Your task to perform on an android device: change your default location settings in chrome Image 0: 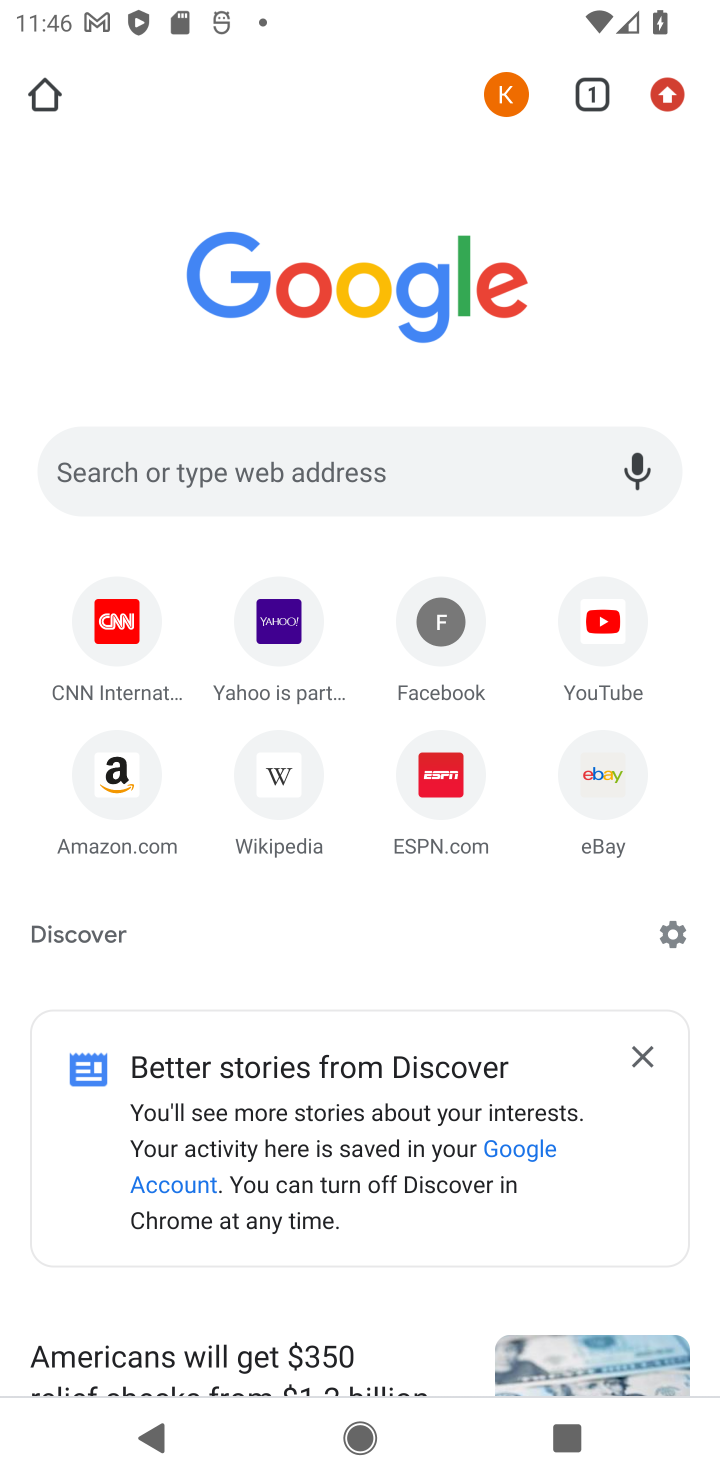
Step 0: press home button
Your task to perform on an android device: change your default location settings in chrome Image 1: 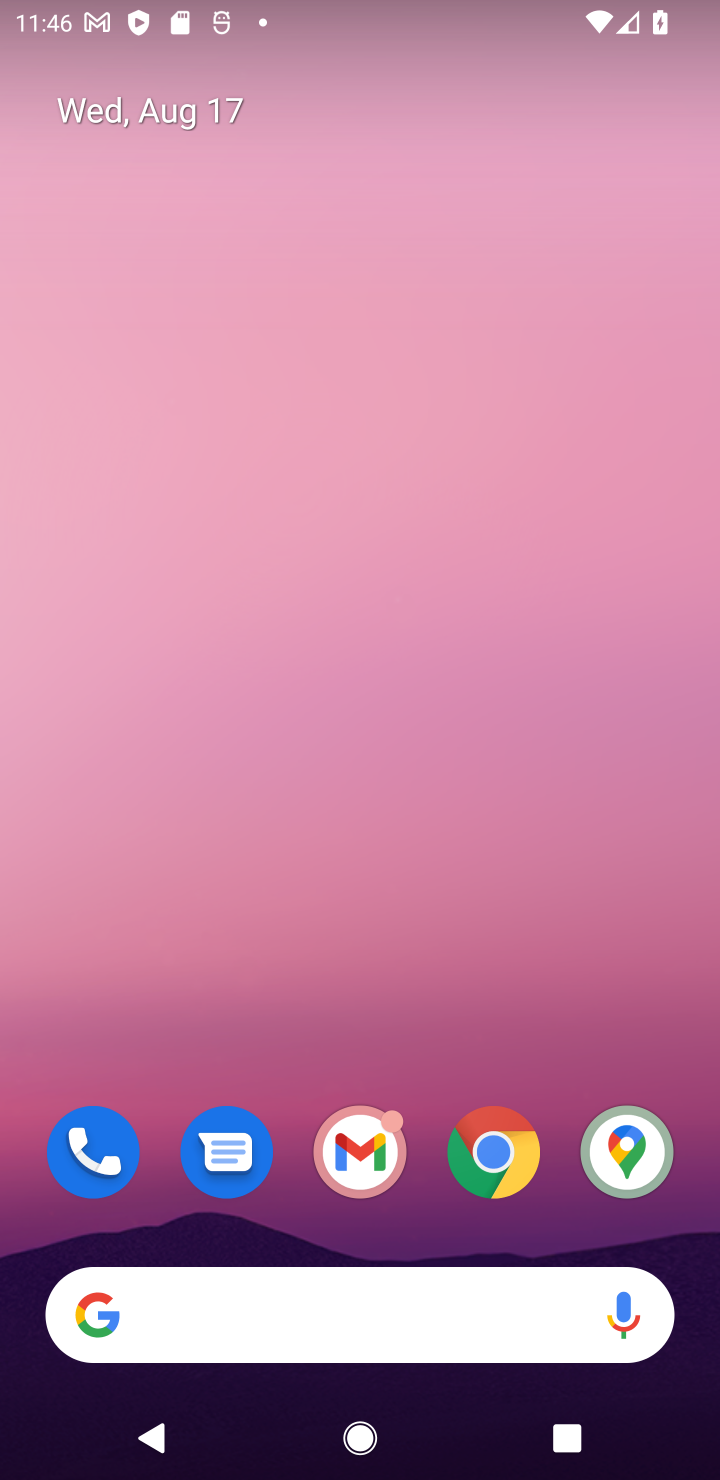
Step 1: drag from (646, 980) to (278, 104)
Your task to perform on an android device: change your default location settings in chrome Image 2: 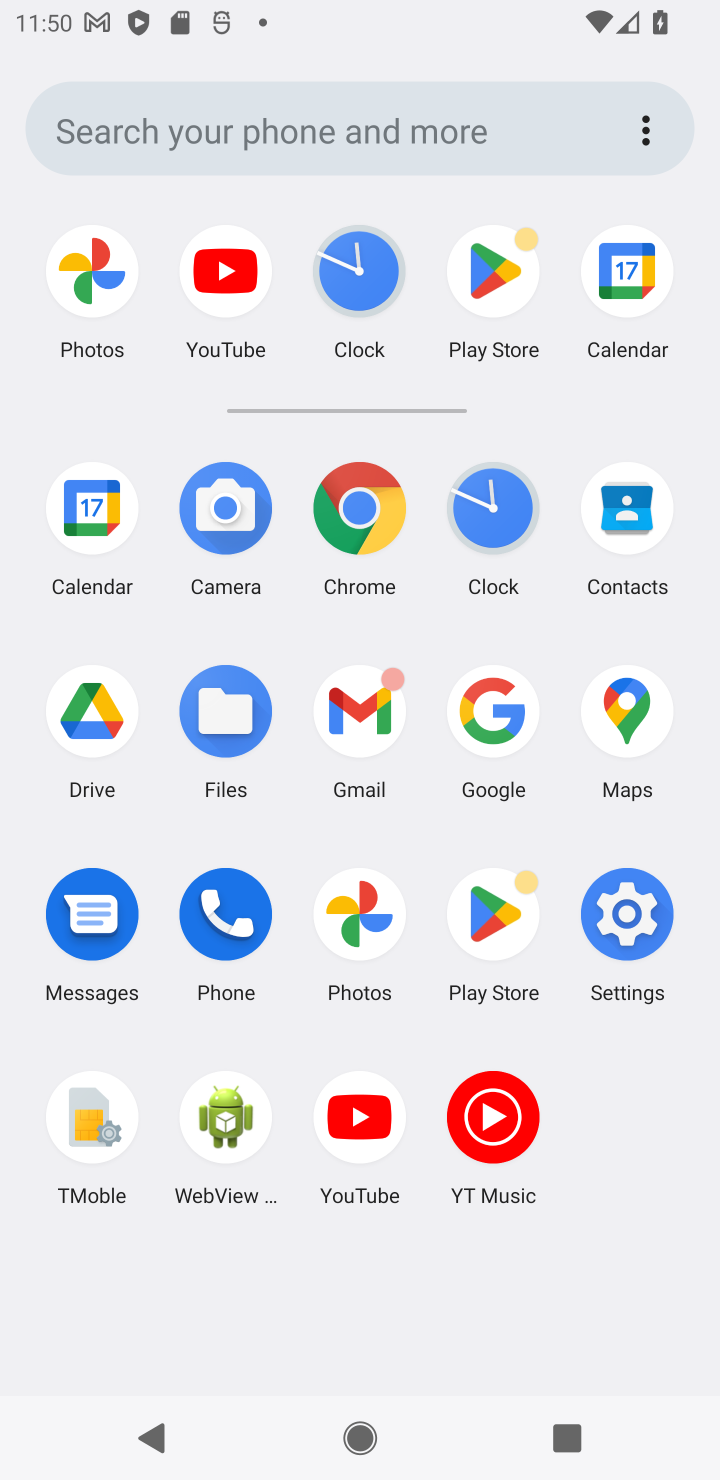
Step 2: click (631, 948)
Your task to perform on an android device: change your default location settings in chrome Image 3: 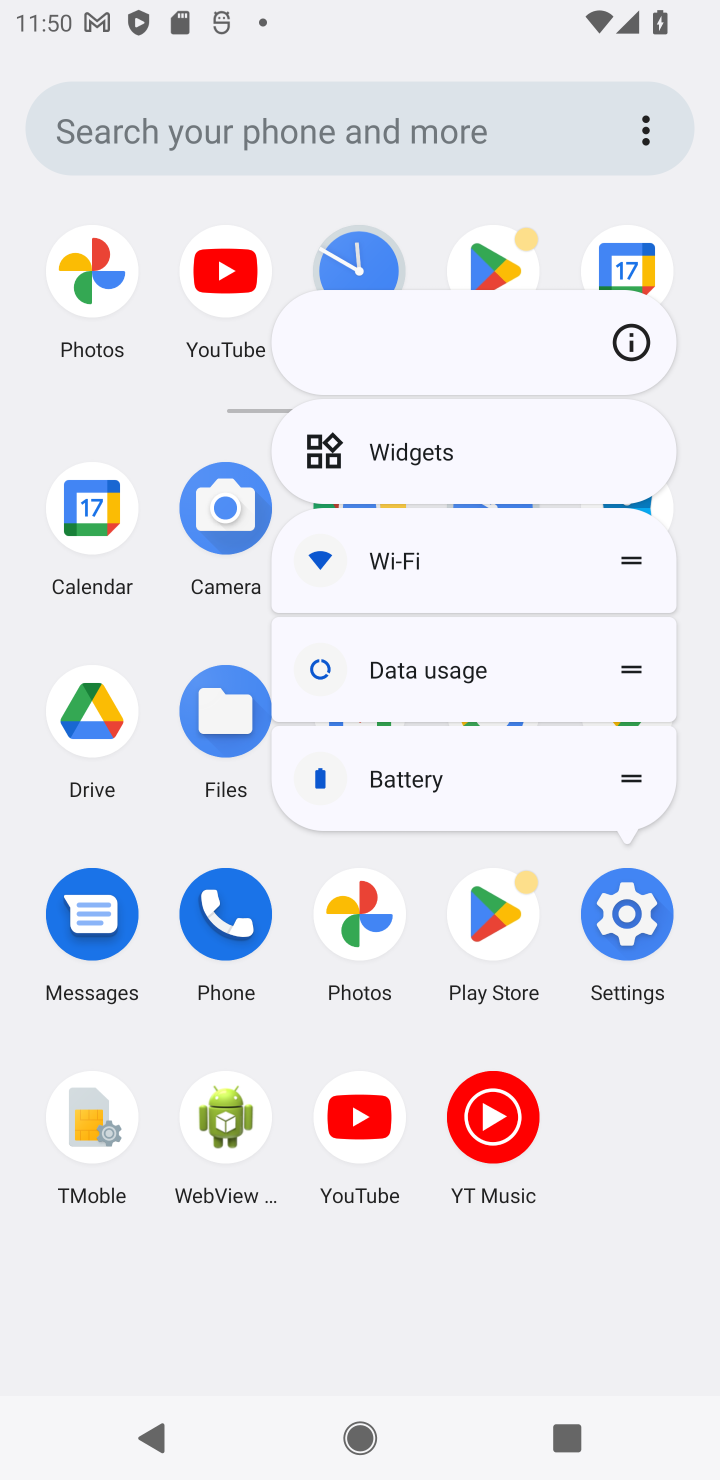
Step 3: click (634, 1152)
Your task to perform on an android device: change your default location settings in chrome Image 4: 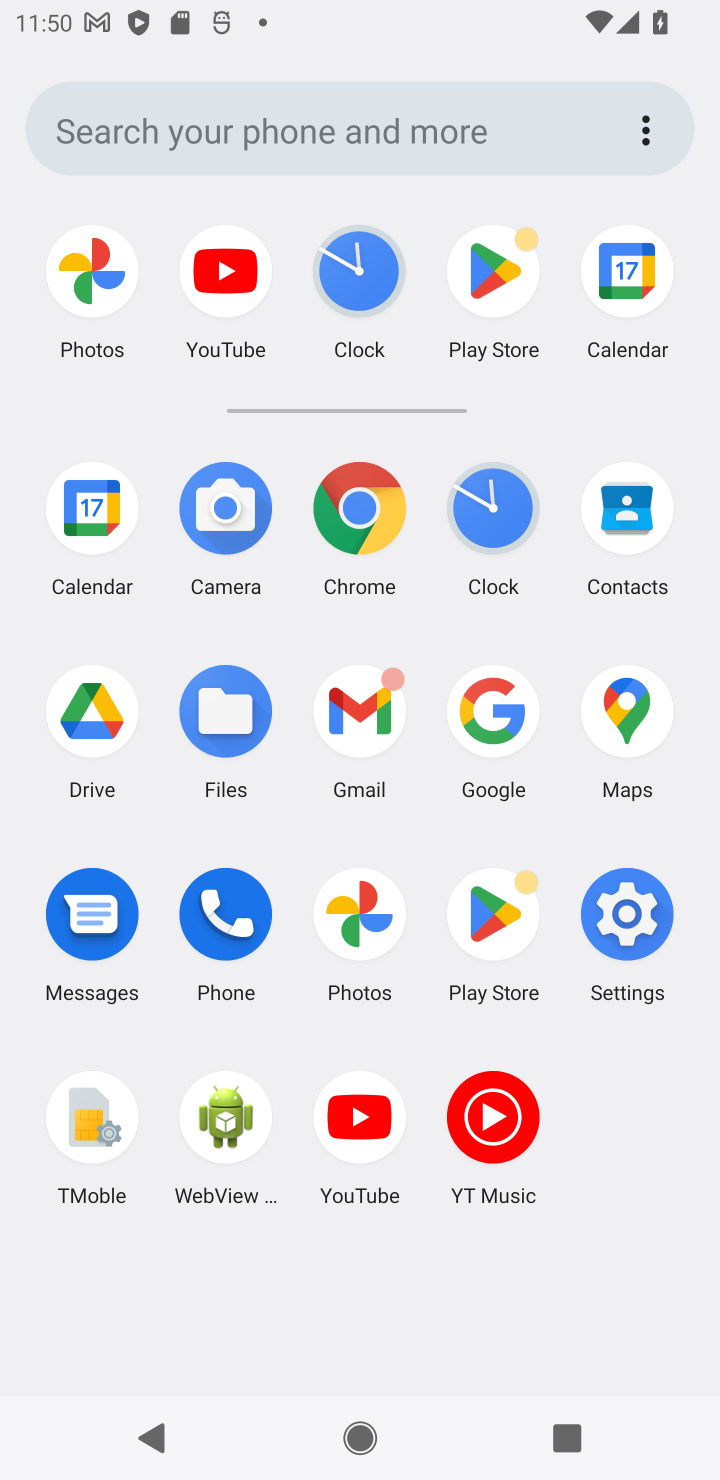
Step 4: click (369, 532)
Your task to perform on an android device: change your default location settings in chrome Image 5: 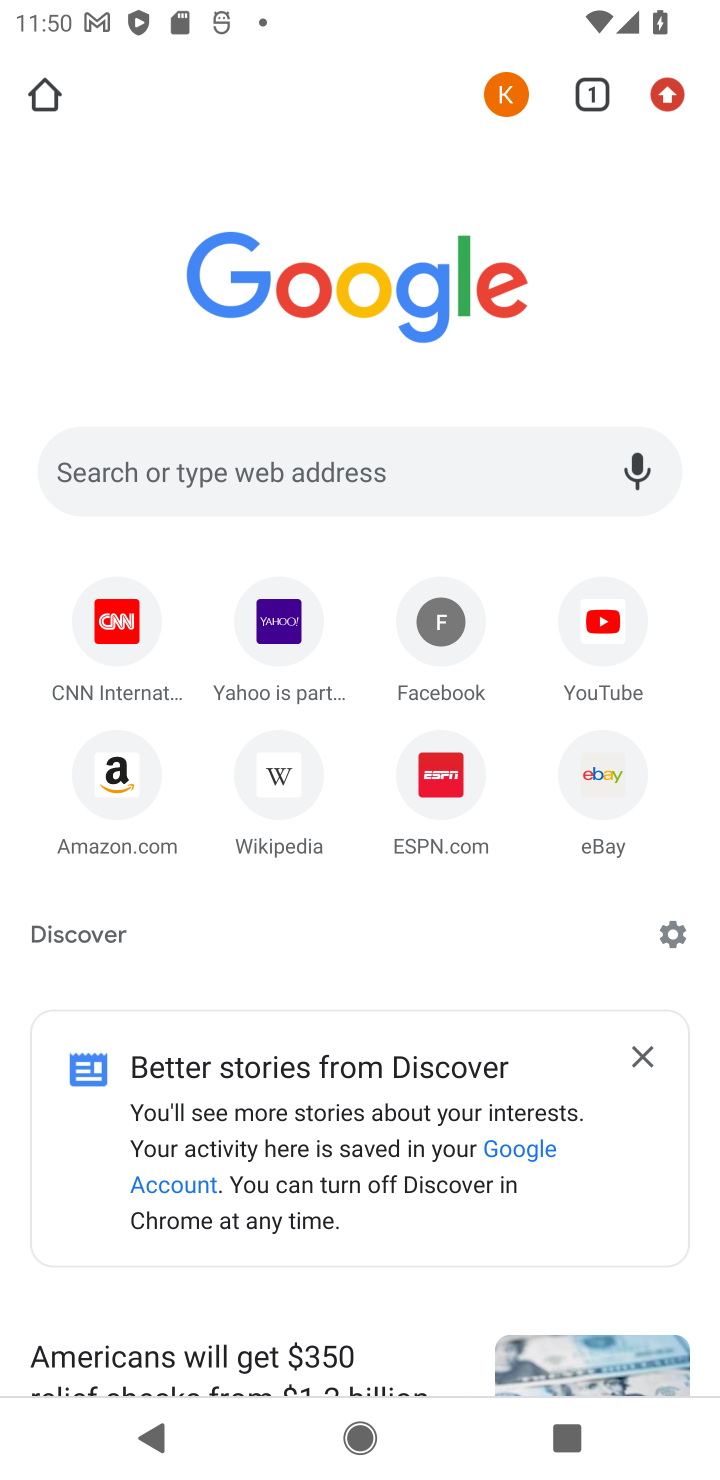
Step 5: click (667, 93)
Your task to perform on an android device: change your default location settings in chrome Image 6: 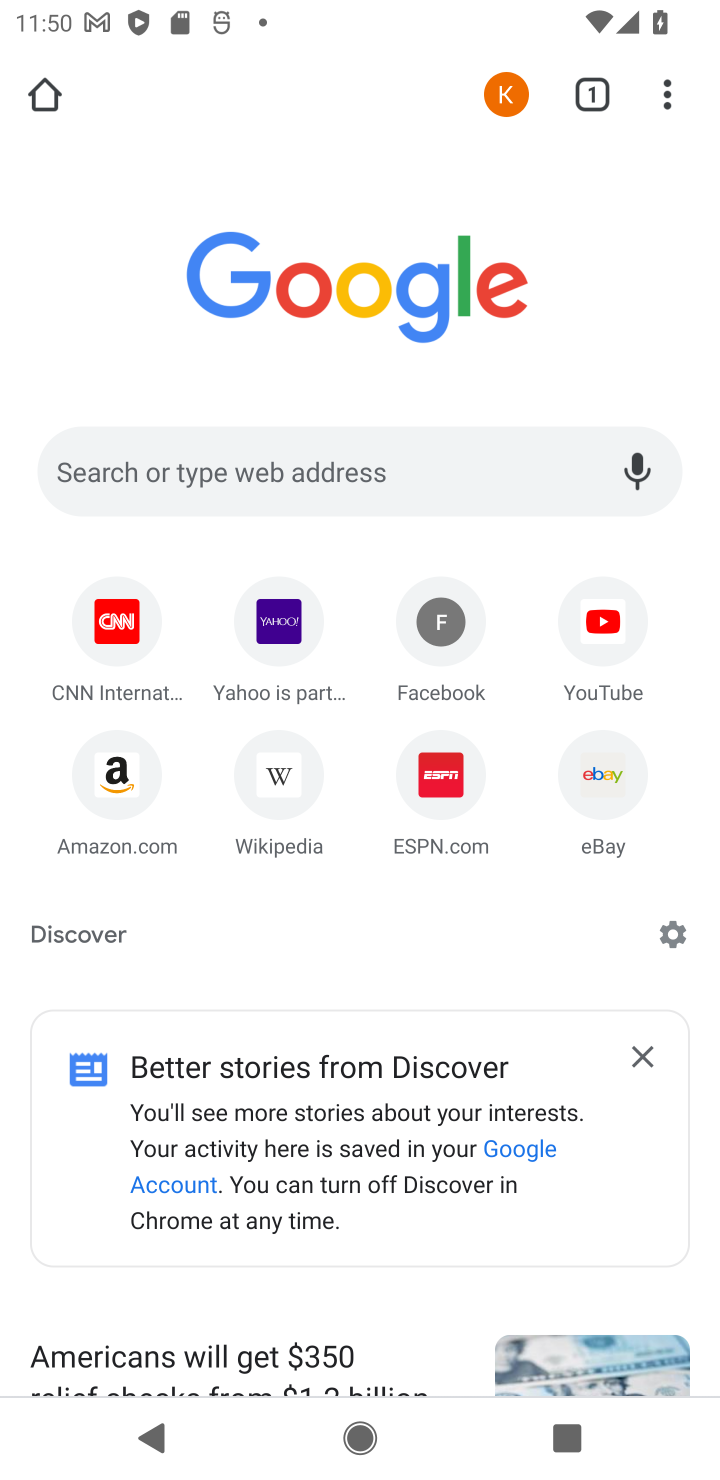
Step 6: click (667, 93)
Your task to perform on an android device: change your default location settings in chrome Image 7: 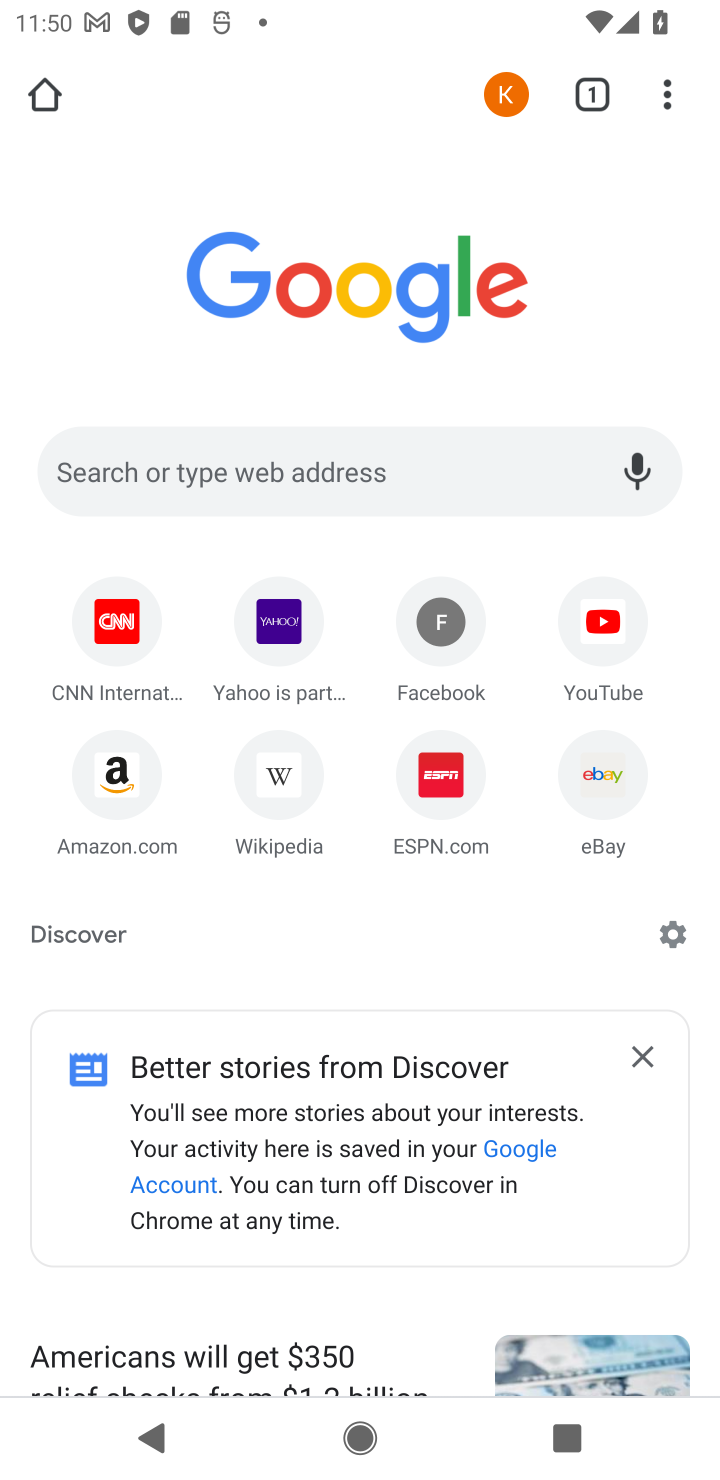
Step 7: click (664, 83)
Your task to perform on an android device: change your default location settings in chrome Image 8: 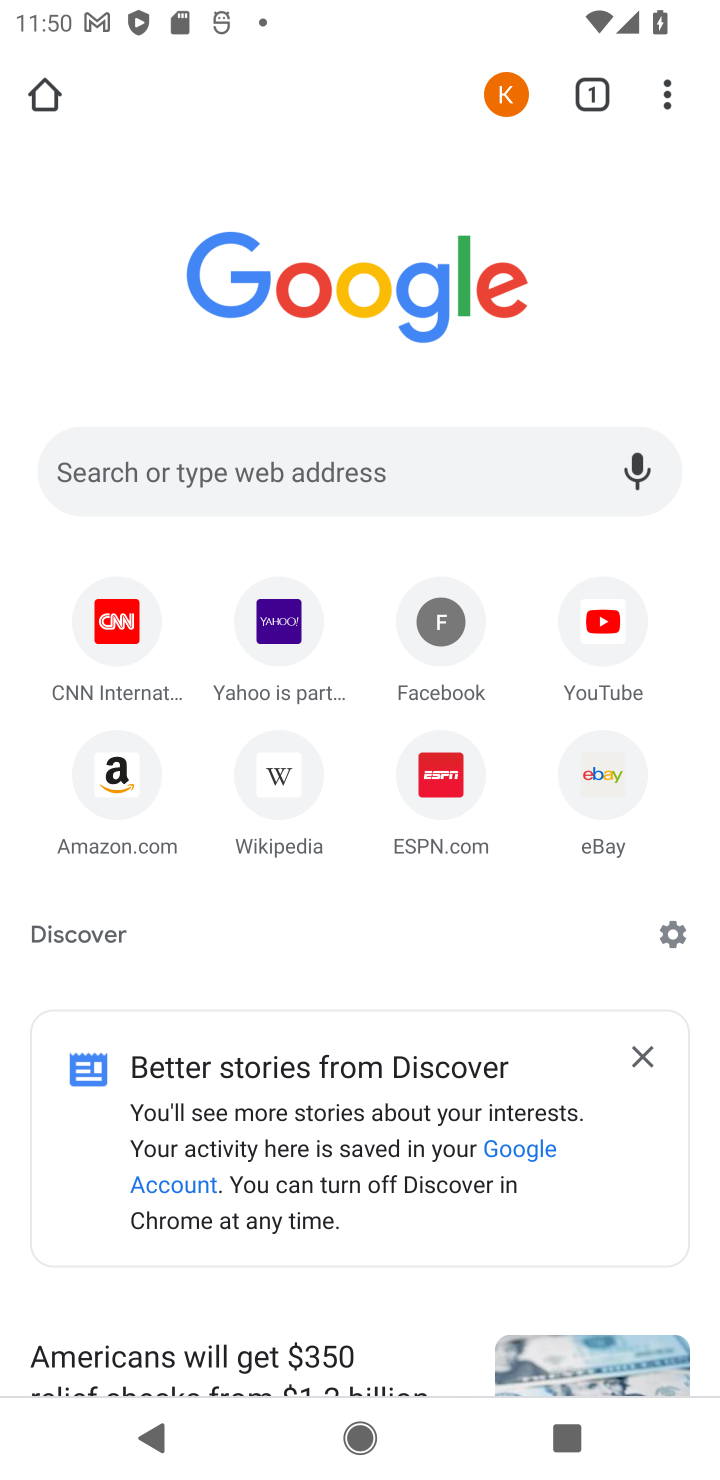
Step 8: click (665, 100)
Your task to perform on an android device: change your default location settings in chrome Image 9: 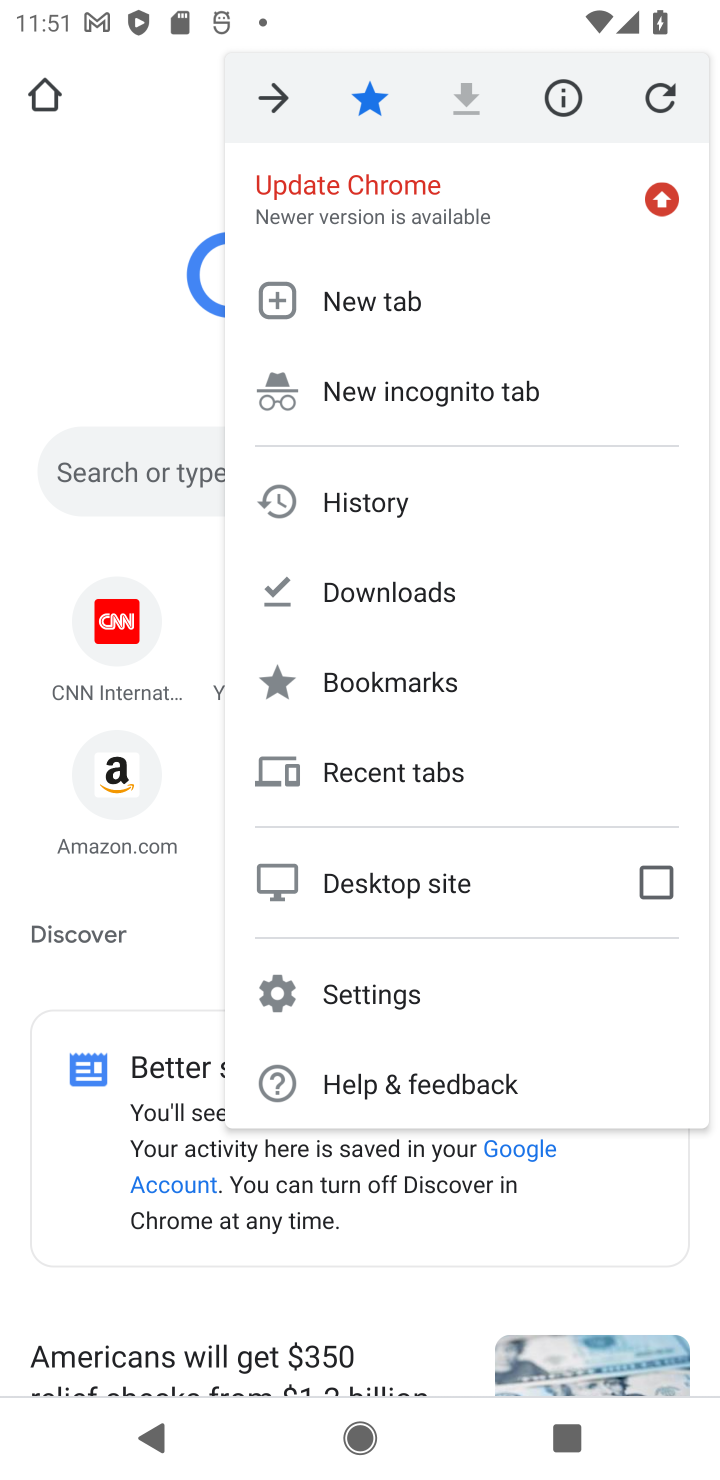
Step 9: click (366, 1005)
Your task to perform on an android device: change your default location settings in chrome Image 10: 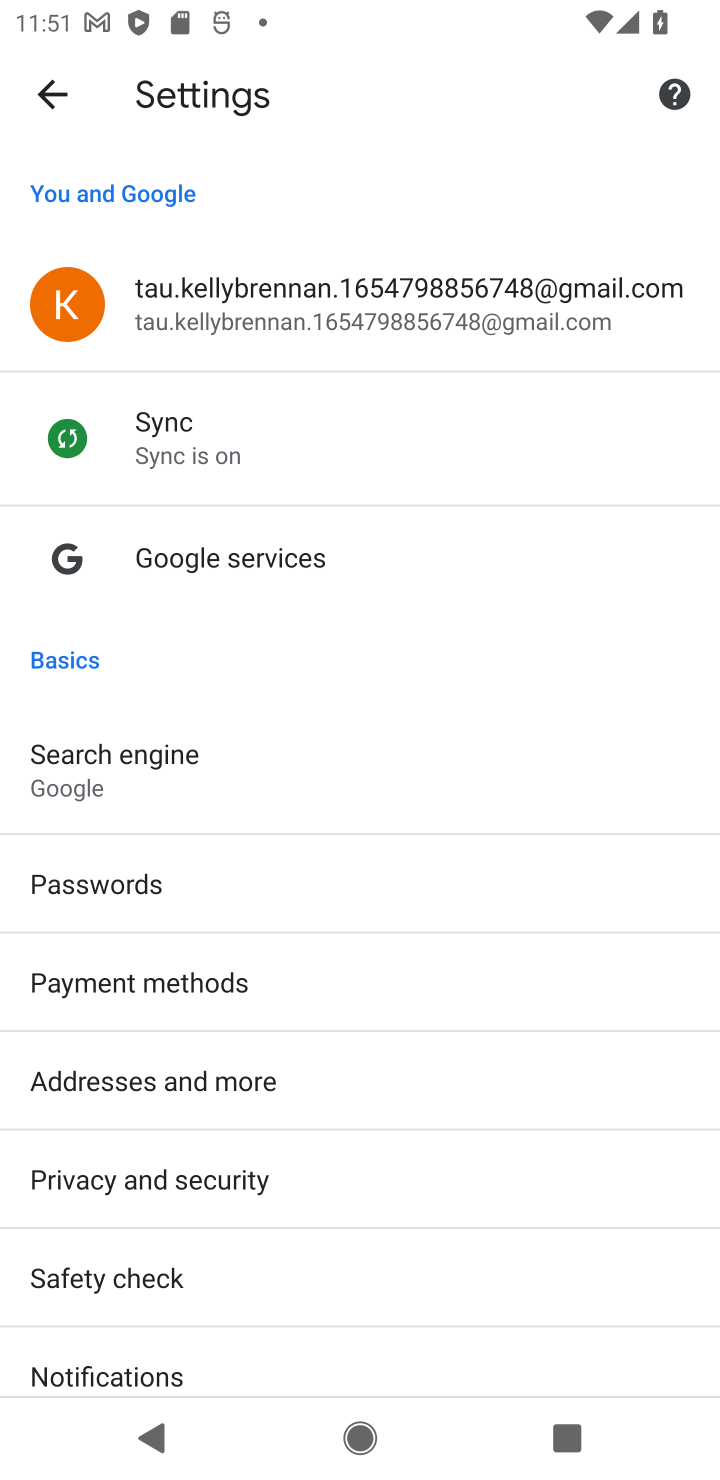
Step 10: click (174, 758)
Your task to perform on an android device: change your default location settings in chrome Image 11: 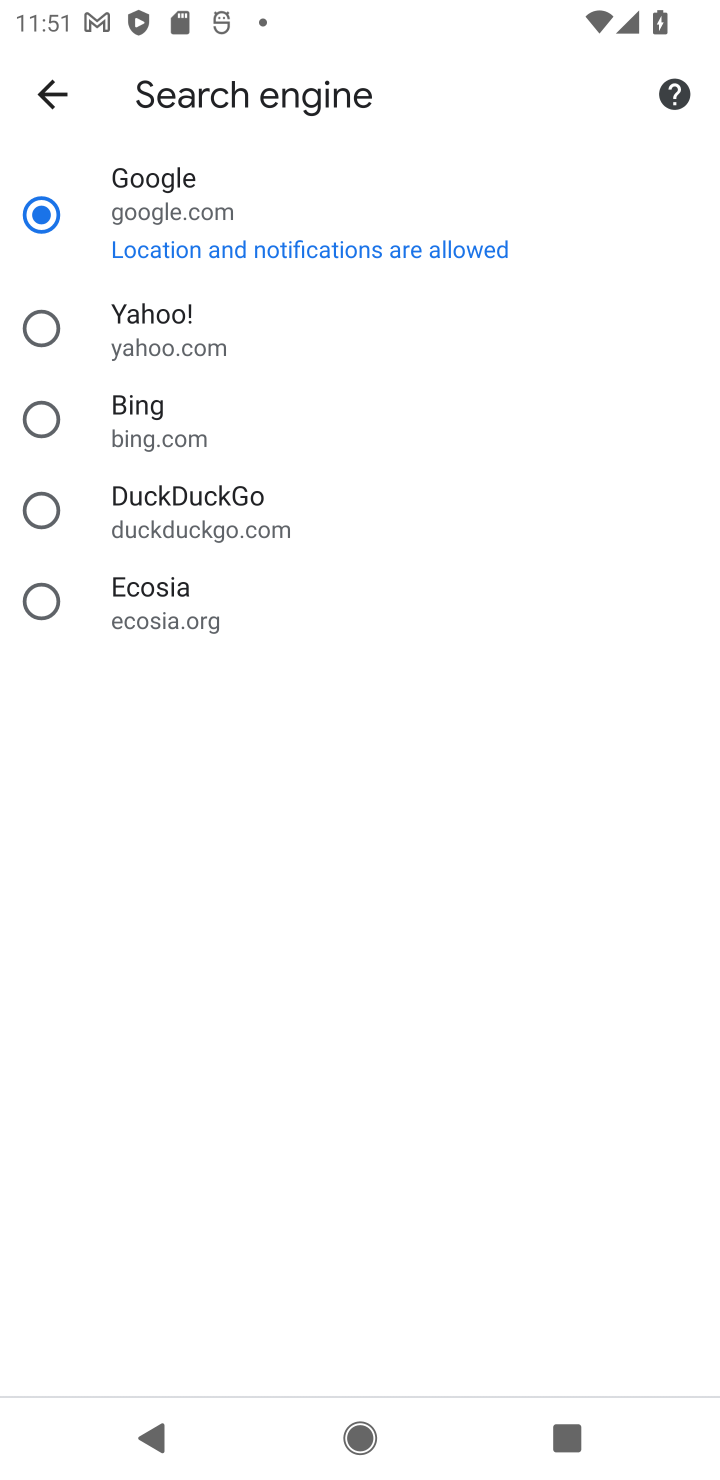
Step 11: click (156, 418)
Your task to perform on an android device: change your default location settings in chrome Image 12: 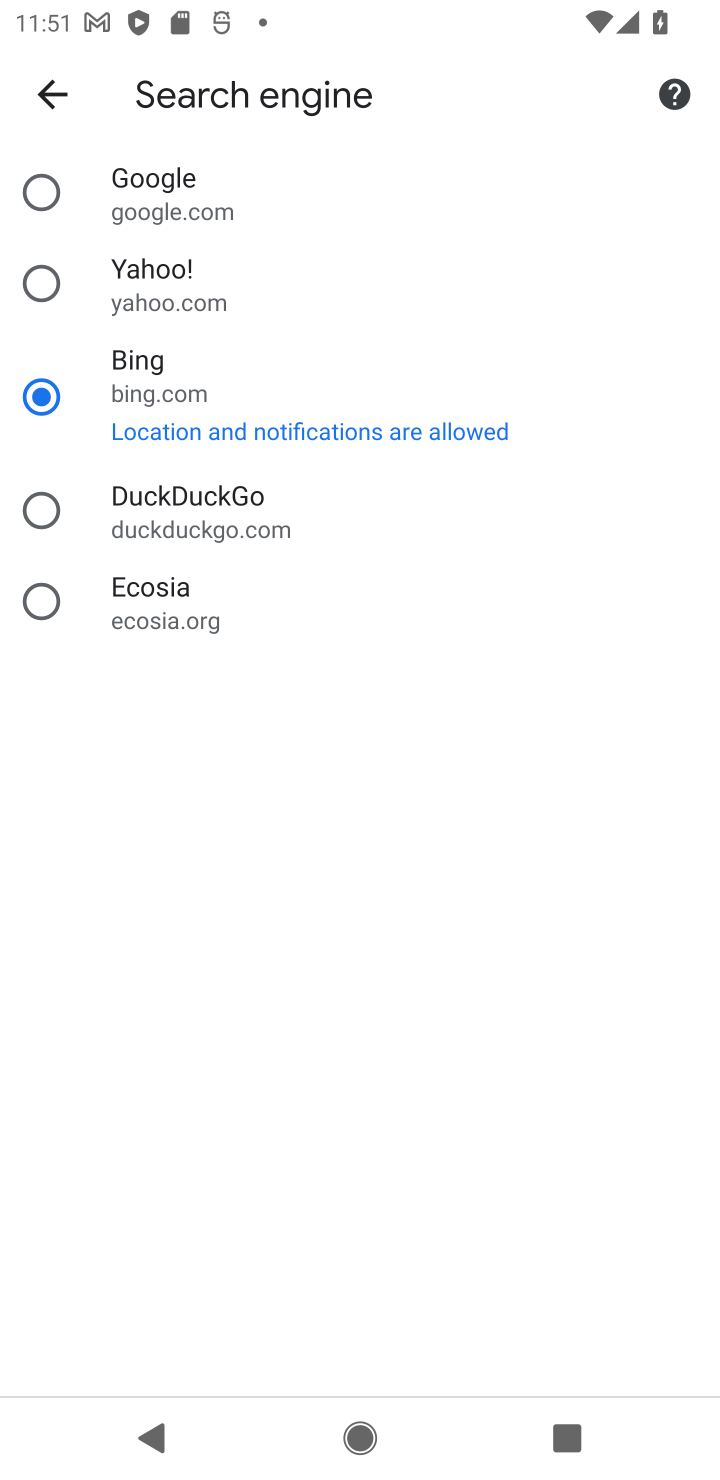
Step 12: task complete